Your task to perform on an android device: Is it going to rain tomorrow? Image 0: 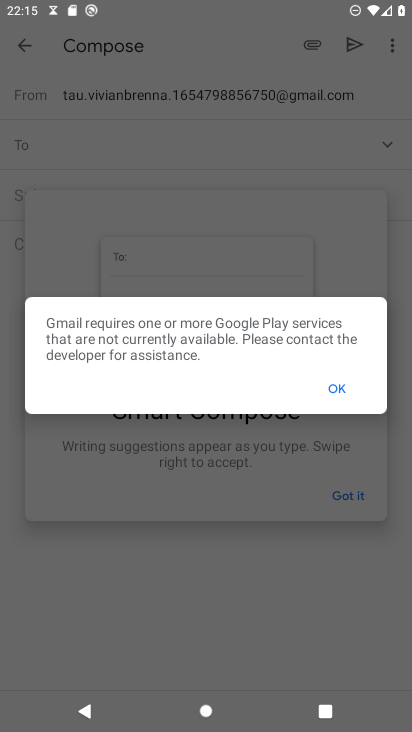
Step 0: drag from (320, 485) to (306, 303)
Your task to perform on an android device: Is it going to rain tomorrow? Image 1: 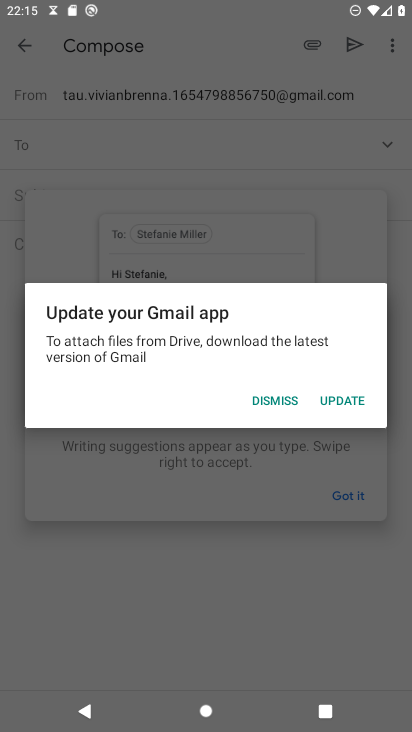
Step 1: press home button
Your task to perform on an android device: Is it going to rain tomorrow? Image 2: 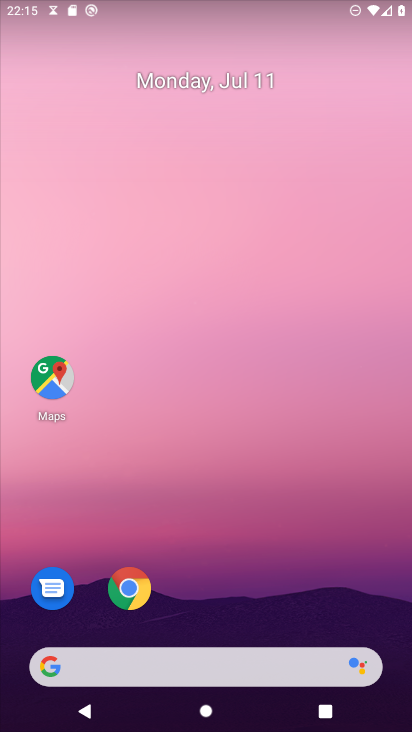
Step 2: drag from (252, 619) to (253, 47)
Your task to perform on an android device: Is it going to rain tomorrow? Image 3: 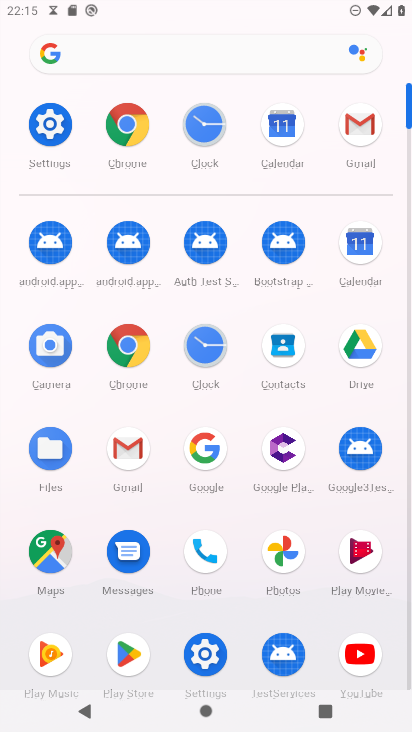
Step 3: click (207, 454)
Your task to perform on an android device: Is it going to rain tomorrow? Image 4: 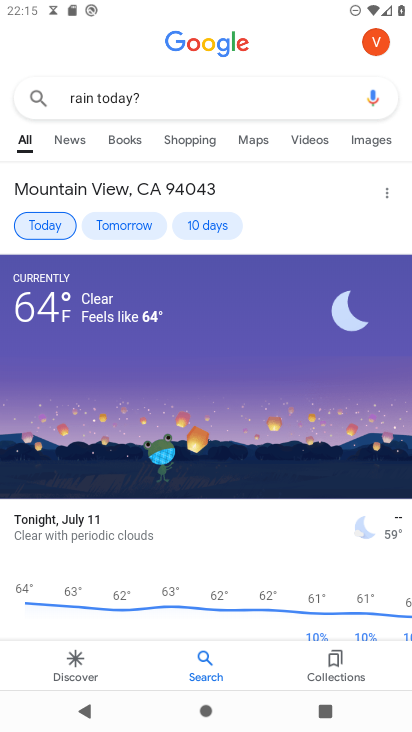
Step 4: click (163, 105)
Your task to perform on an android device: Is it going to rain tomorrow? Image 5: 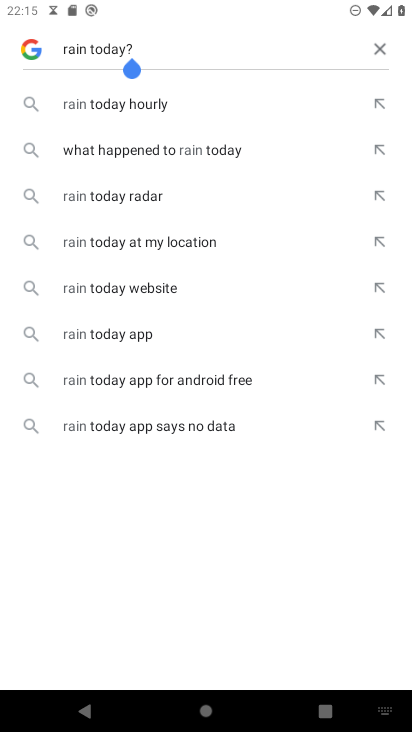
Step 5: click (381, 44)
Your task to perform on an android device: Is it going to rain tomorrow? Image 6: 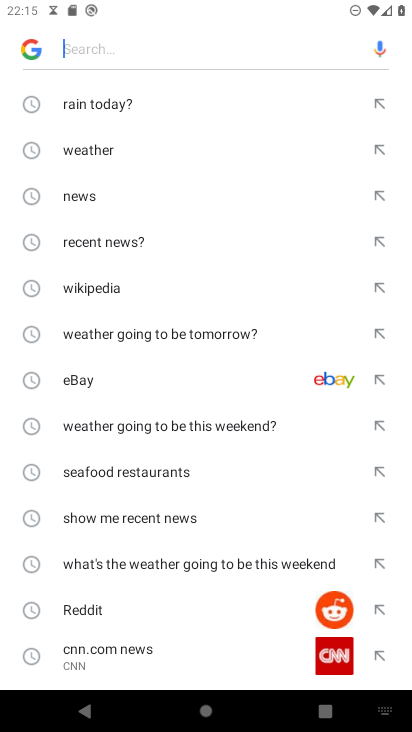
Step 6: type "Is it going to rain tomorrow?"
Your task to perform on an android device: Is it going to rain tomorrow? Image 7: 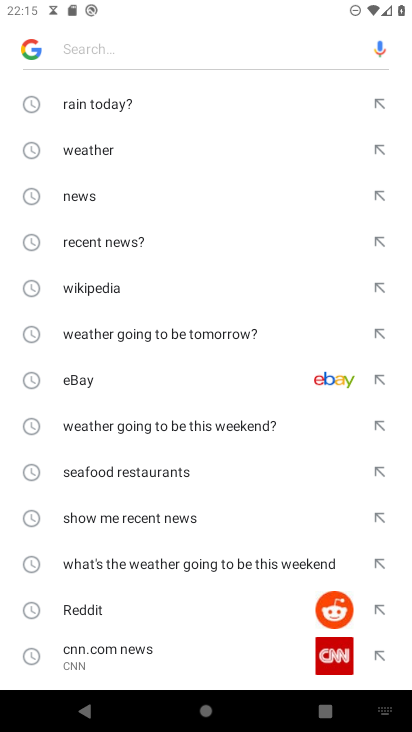
Step 7: click (117, 51)
Your task to perform on an android device: Is it going to rain tomorrow? Image 8: 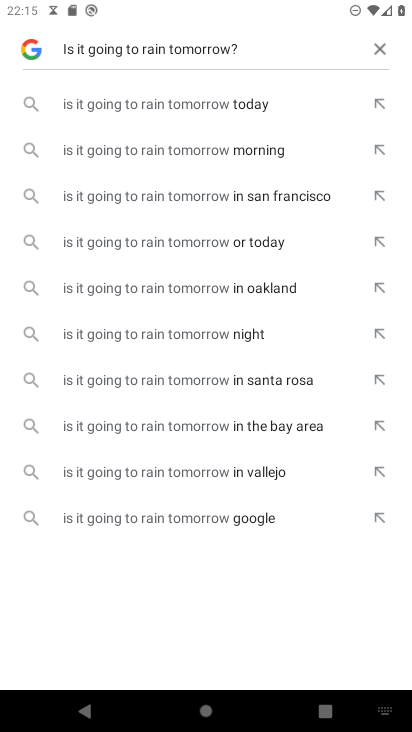
Step 8: press enter
Your task to perform on an android device: Is it going to rain tomorrow? Image 9: 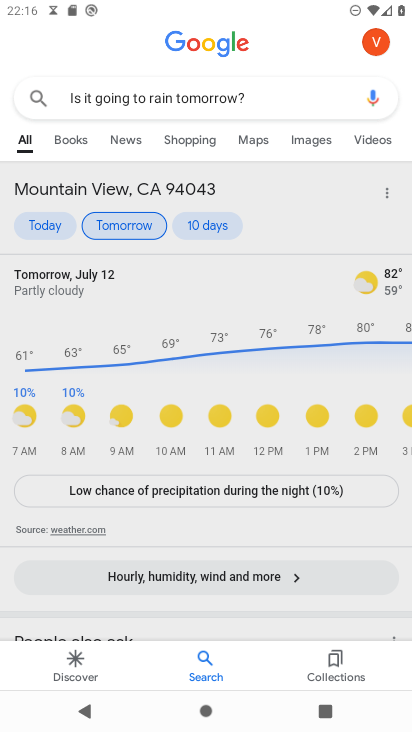
Step 9: task complete